Your task to perform on an android device: open chrome and create a bookmark for the current page Image 0: 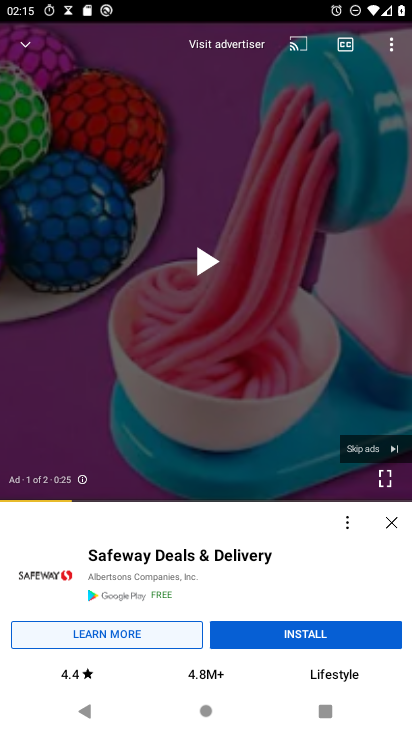
Step 0: press home button
Your task to perform on an android device: open chrome and create a bookmark for the current page Image 1: 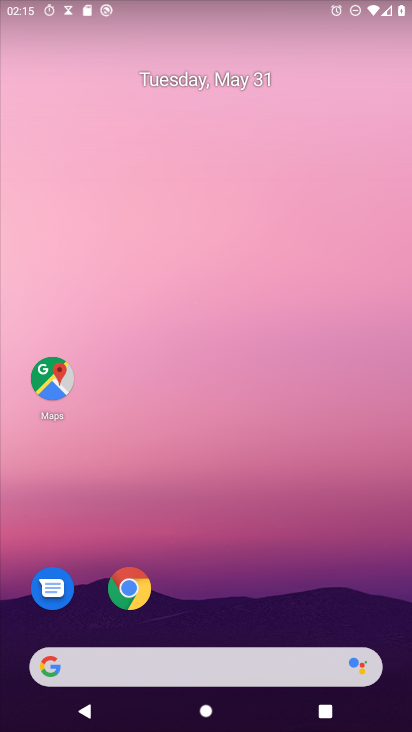
Step 1: drag from (325, 651) to (308, 1)
Your task to perform on an android device: open chrome and create a bookmark for the current page Image 2: 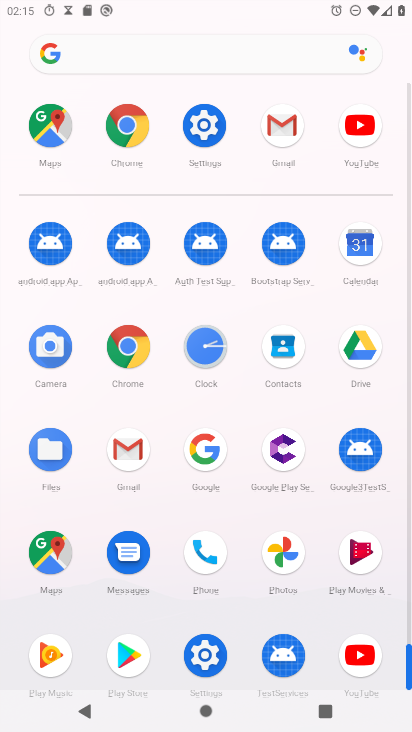
Step 2: click (138, 351)
Your task to perform on an android device: open chrome and create a bookmark for the current page Image 3: 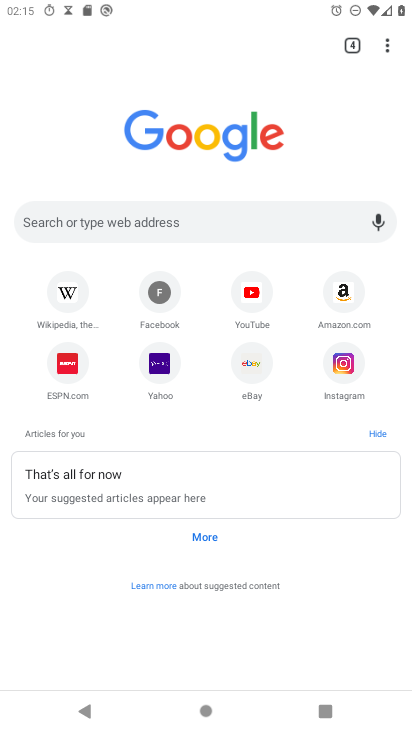
Step 3: task complete